Your task to perform on an android device: Search for logitech g910 on ebay.com, select the first entry, and add it to the cart. Image 0: 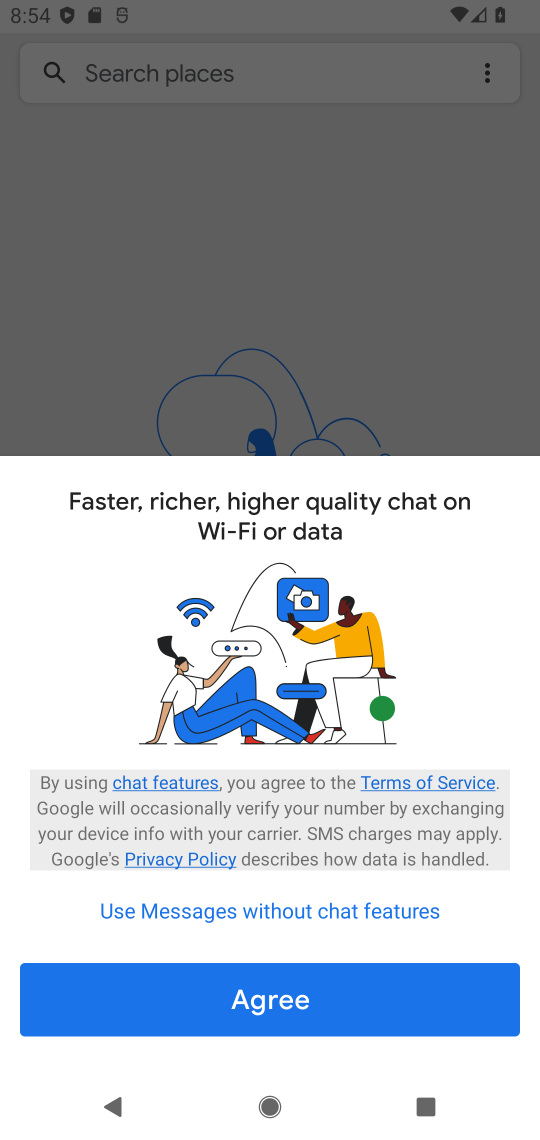
Step 0: press home button
Your task to perform on an android device: Search for logitech g910 on ebay.com, select the first entry, and add it to the cart. Image 1: 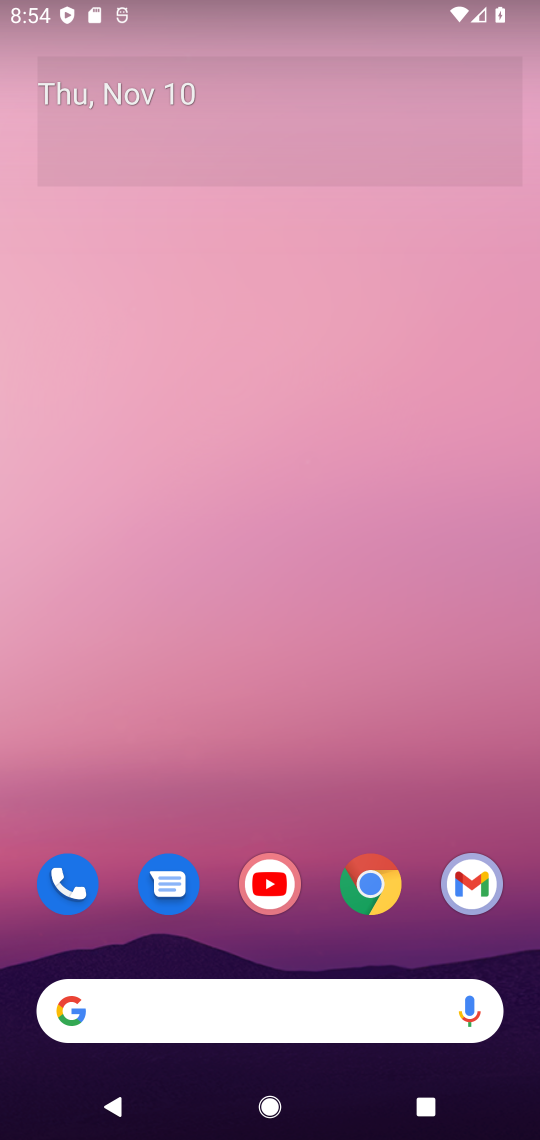
Step 1: drag from (441, 1110) to (197, 1048)
Your task to perform on an android device: Search for logitech g910 on ebay.com, select the first entry, and add it to the cart. Image 2: 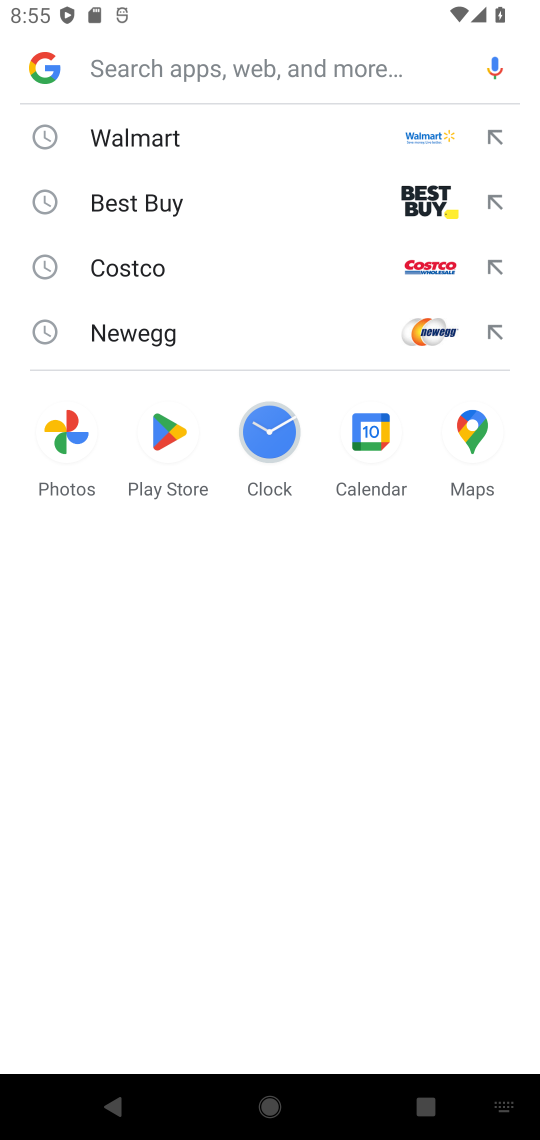
Step 2: click (276, 993)
Your task to perform on an android device: Search for logitech g910 on ebay.com, select the first entry, and add it to the cart. Image 3: 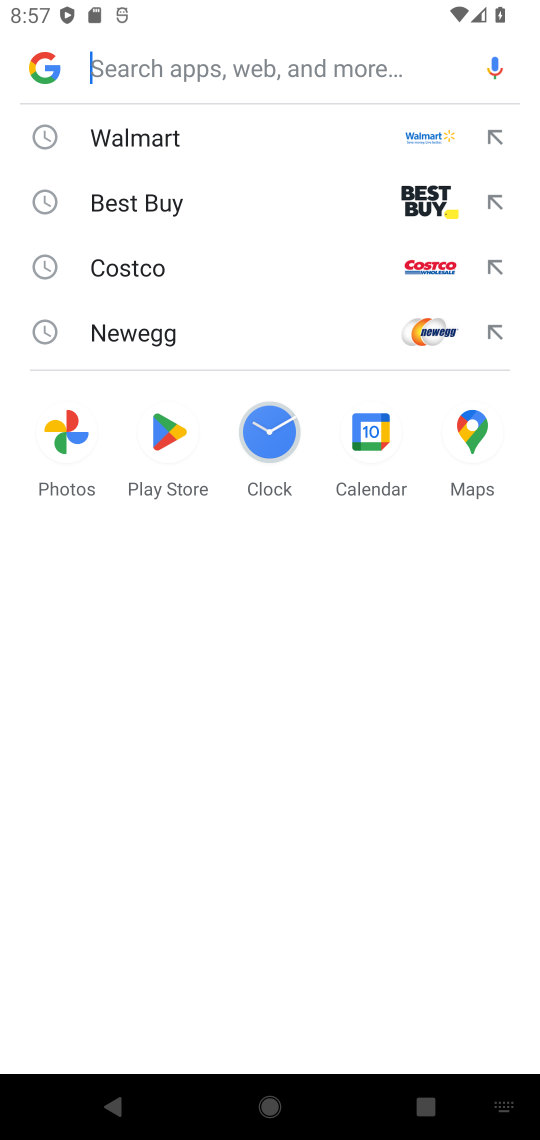
Step 3: type "ebay.com"
Your task to perform on an android device: Search for logitech g910 on ebay.com, select the first entry, and add it to the cart. Image 4: 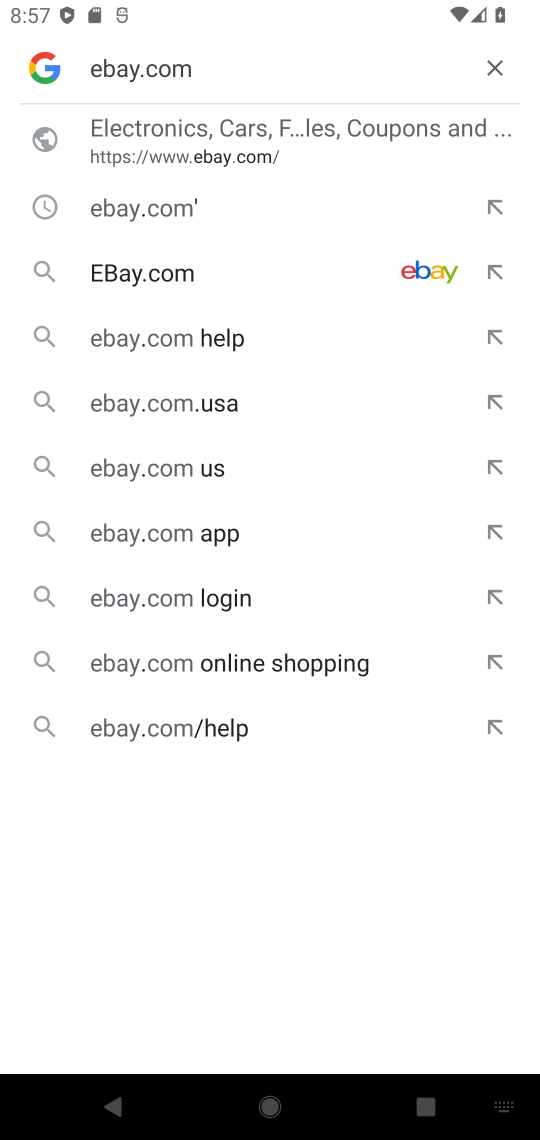
Step 4: click (169, 288)
Your task to perform on an android device: Search for logitech g910 on ebay.com, select the first entry, and add it to the cart. Image 5: 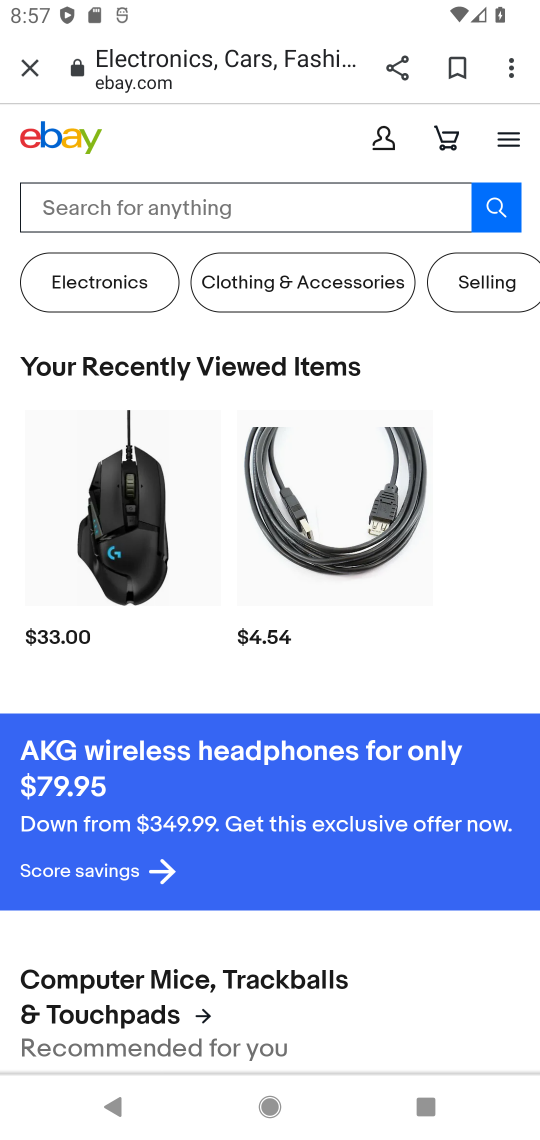
Step 5: click (186, 201)
Your task to perform on an android device: Search for logitech g910 on ebay.com, select the first entry, and add it to the cart. Image 6: 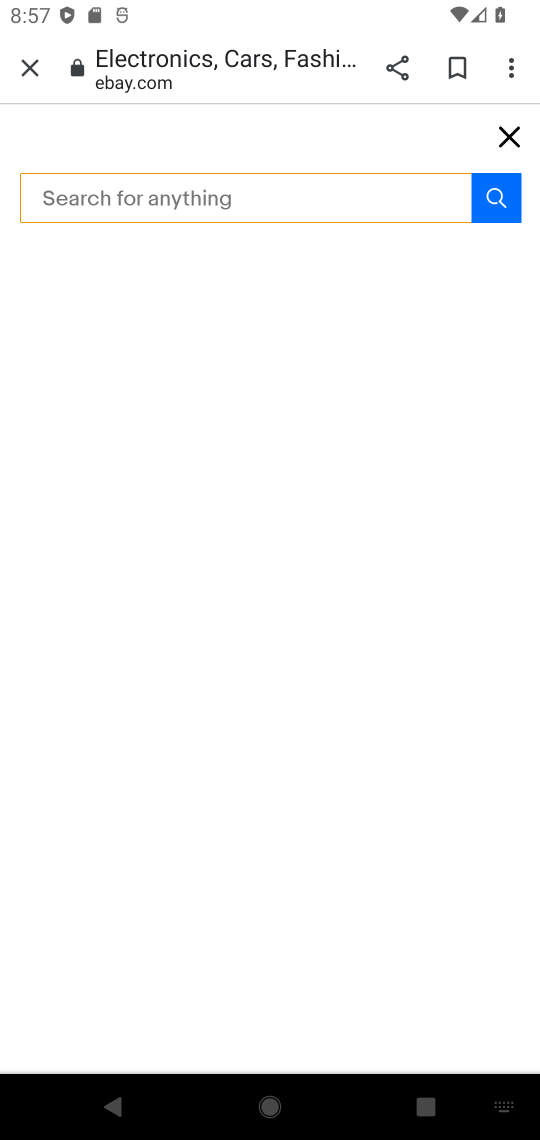
Step 6: type "logitech g910"
Your task to perform on an android device: Search for logitech g910 on ebay.com, select the first entry, and add it to the cart. Image 7: 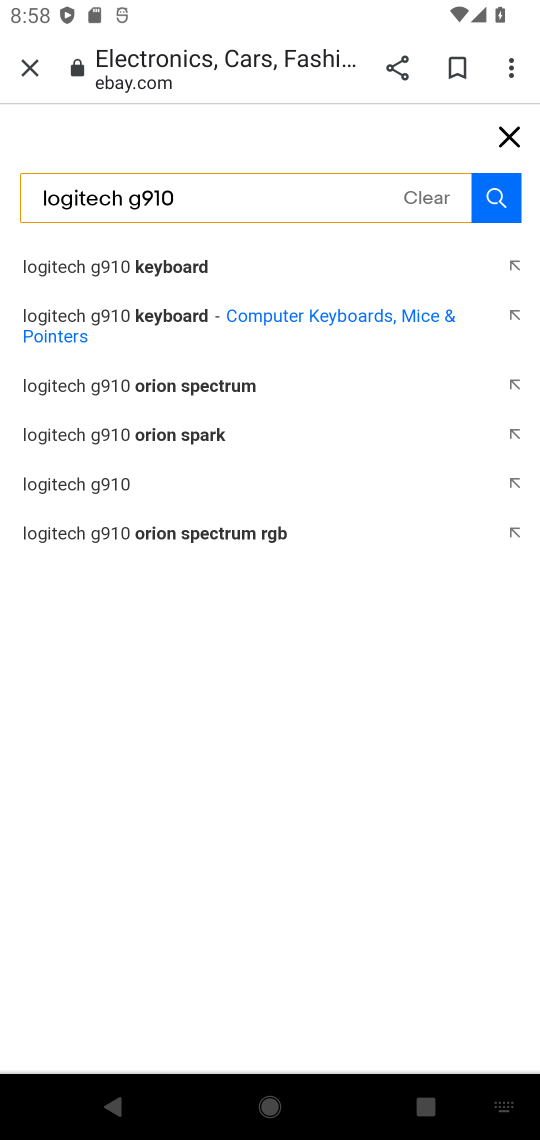
Step 7: click (112, 271)
Your task to perform on an android device: Search for logitech g910 on ebay.com, select the first entry, and add it to the cart. Image 8: 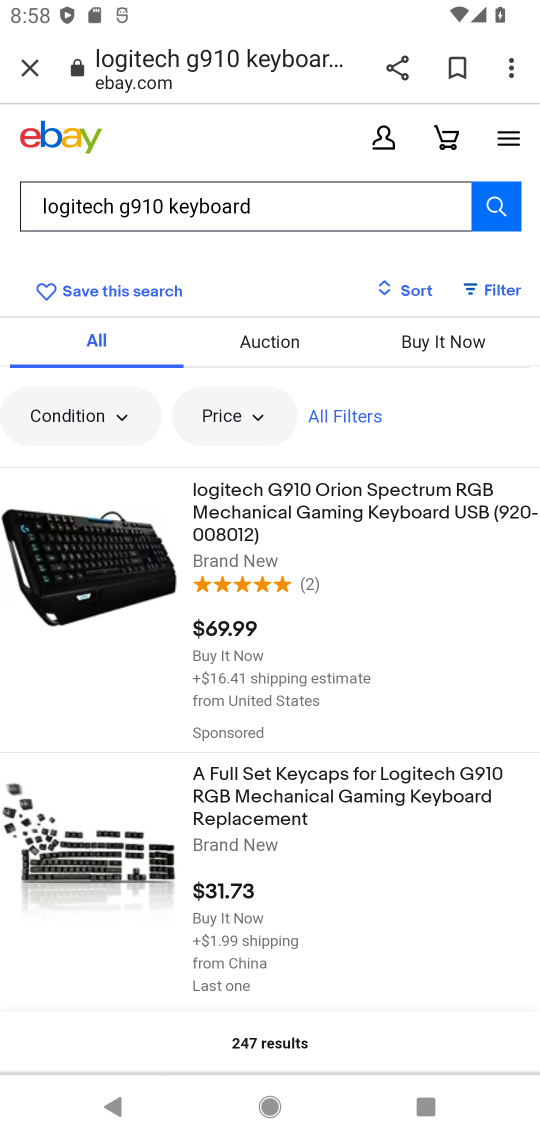
Step 8: click (290, 515)
Your task to perform on an android device: Search for logitech g910 on ebay.com, select the first entry, and add it to the cart. Image 9: 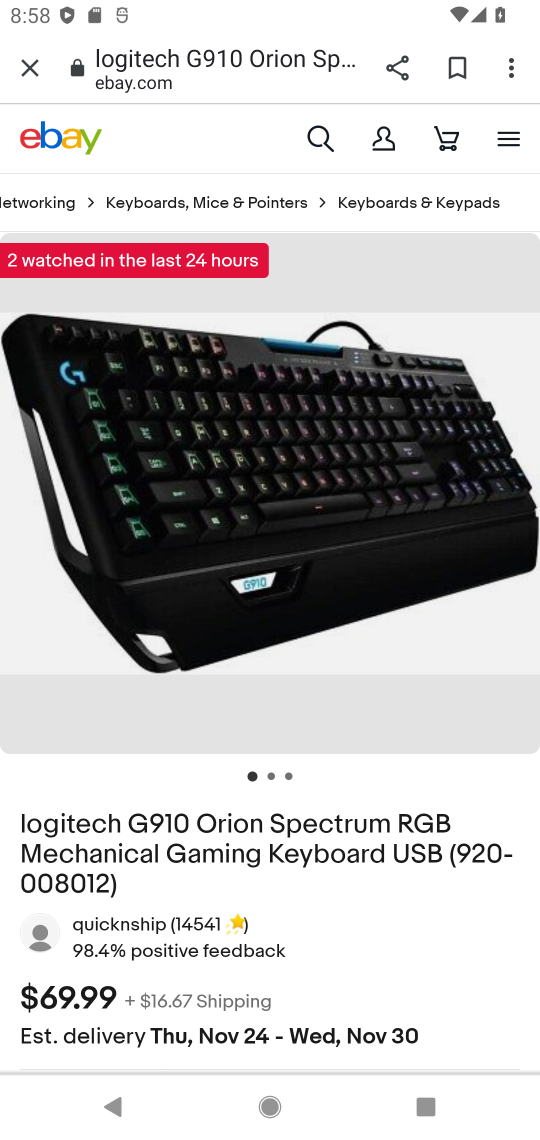
Step 9: drag from (392, 816) to (392, 485)
Your task to perform on an android device: Search for logitech g910 on ebay.com, select the first entry, and add it to the cart. Image 10: 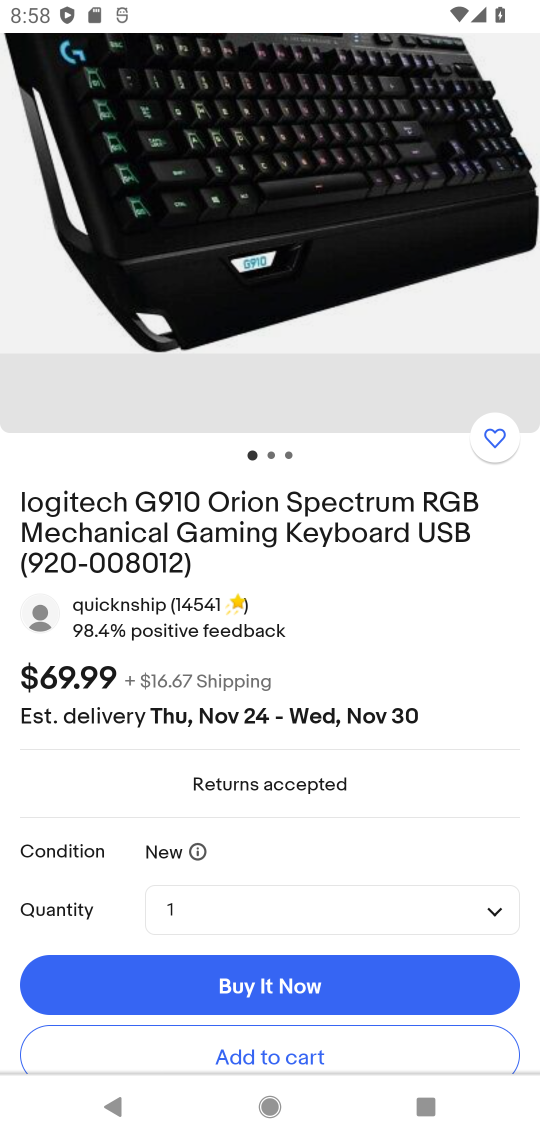
Step 10: click (287, 1058)
Your task to perform on an android device: Search for logitech g910 on ebay.com, select the first entry, and add it to the cart. Image 11: 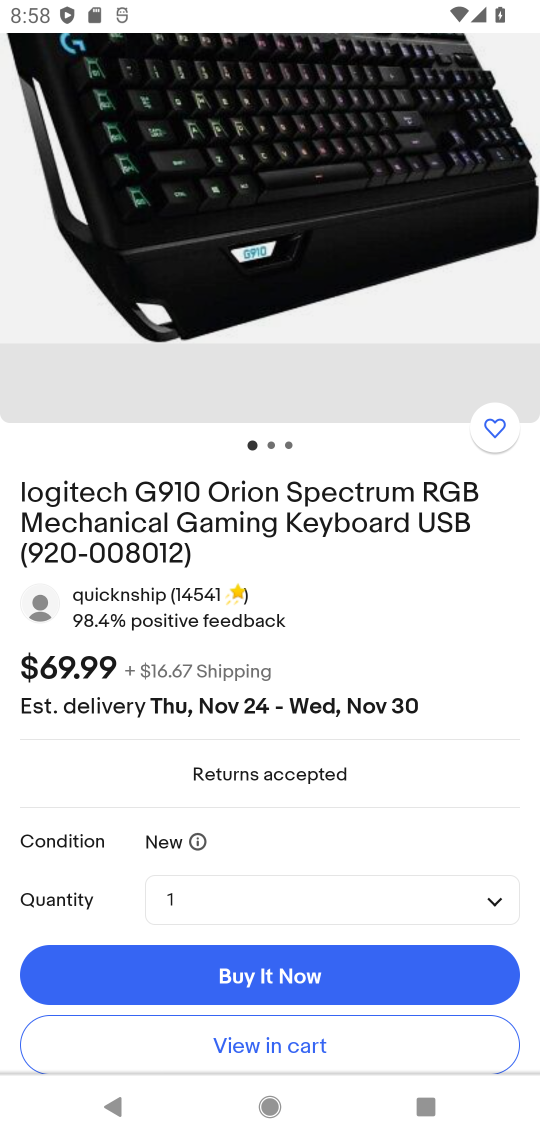
Step 11: click (273, 1039)
Your task to perform on an android device: Search for logitech g910 on ebay.com, select the first entry, and add it to the cart. Image 12: 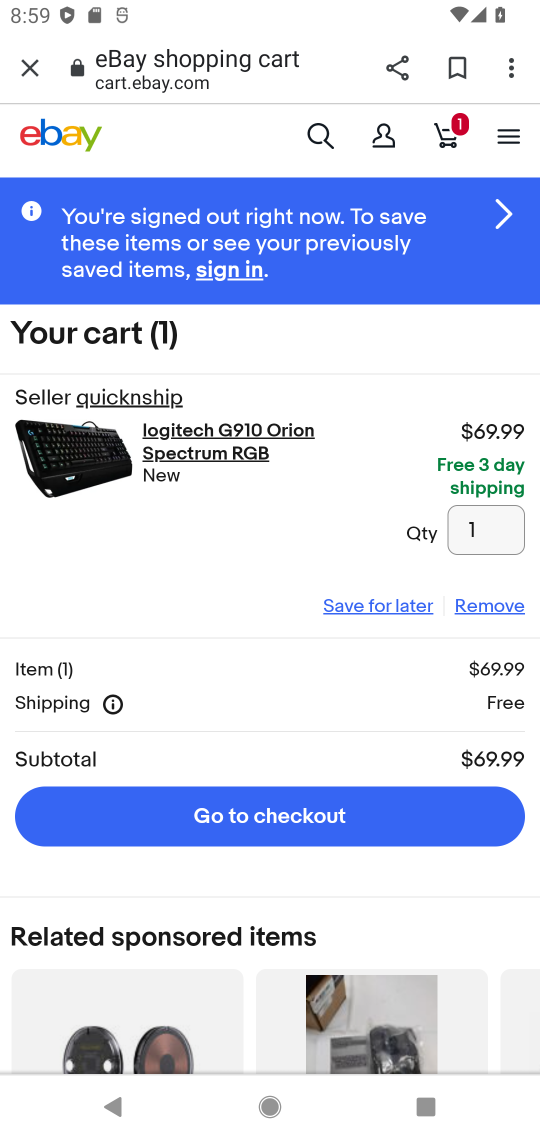
Step 12: task complete